Your task to perform on an android device: Go to settings Image 0: 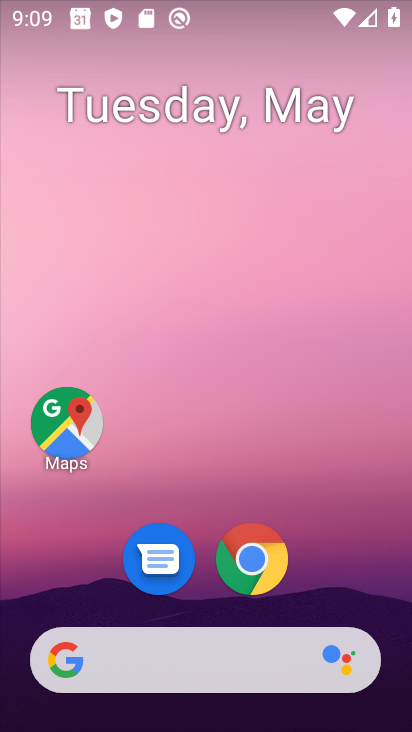
Step 0: drag from (378, 625) to (173, 171)
Your task to perform on an android device: Go to settings Image 1: 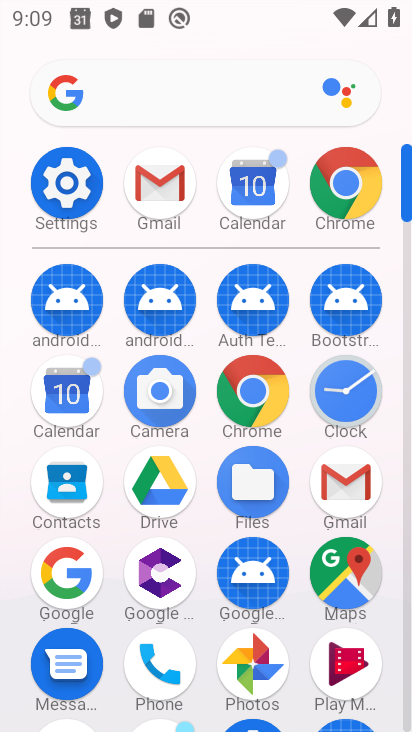
Step 1: click (64, 196)
Your task to perform on an android device: Go to settings Image 2: 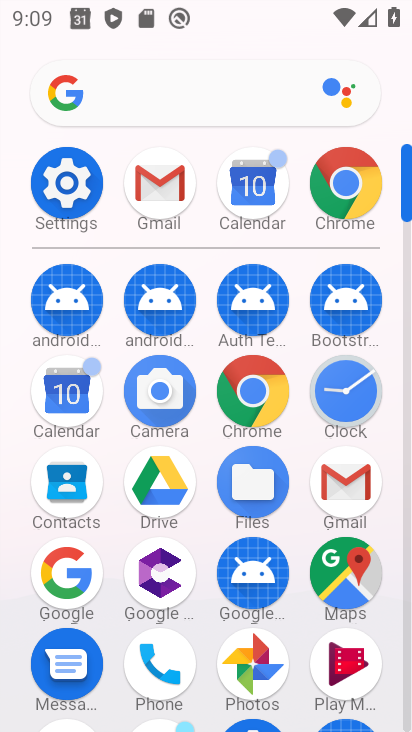
Step 2: click (65, 194)
Your task to perform on an android device: Go to settings Image 3: 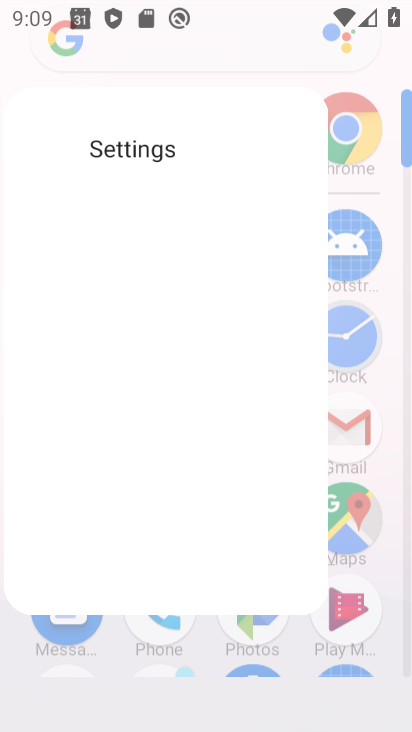
Step 3: click (65, 194)
Your task to perform on an android device: Go to settings Image 4: 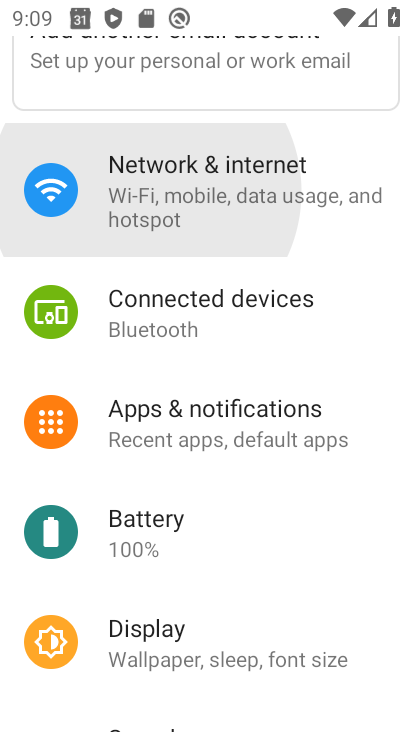
Step 4: click (65, 194)
Your task to perform on an android device: Go to settings Image 5: 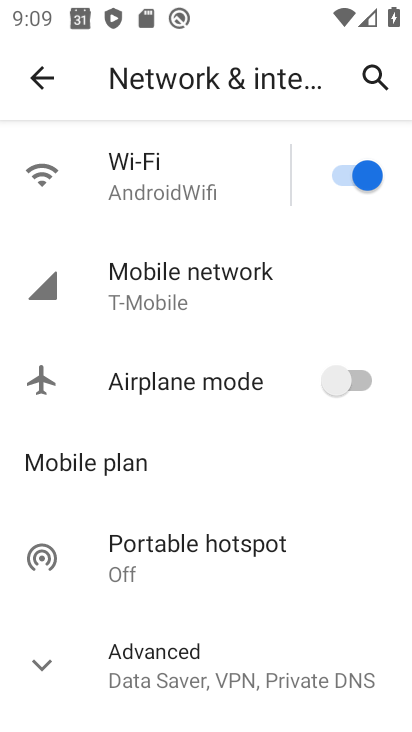
Step 5: click (42, 70)
Your task to perform on an android device: Go to settings Image 6: 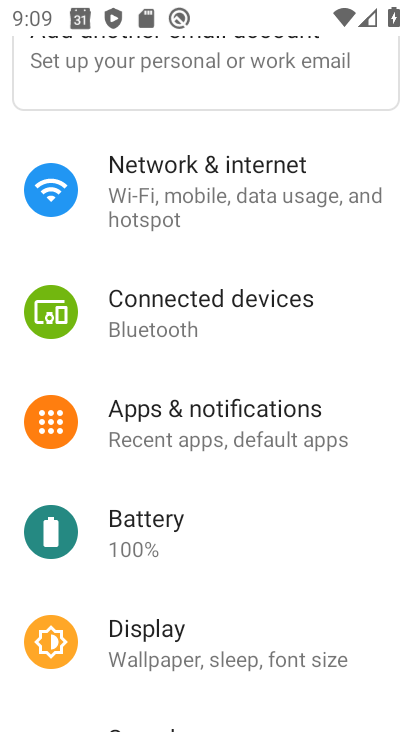
Step 6: task complete